Your task to perform on an android device: Go to calendar. Show me events next week Image 0: 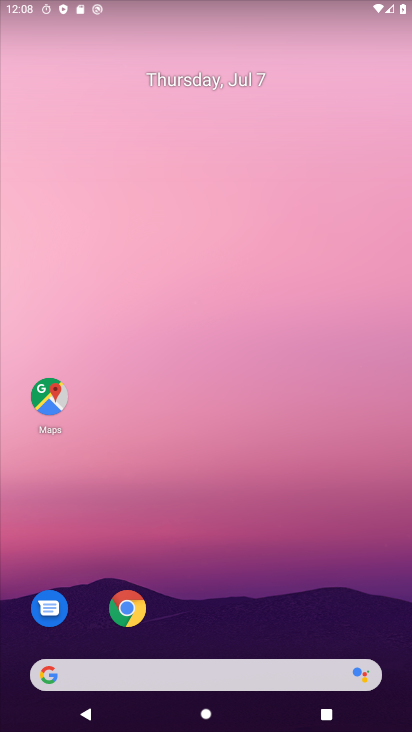
Step 0: drag from (196, 695) to (289, 109)
Your task to perform on an android device: Go to calendar. Show me events next week Image 1: 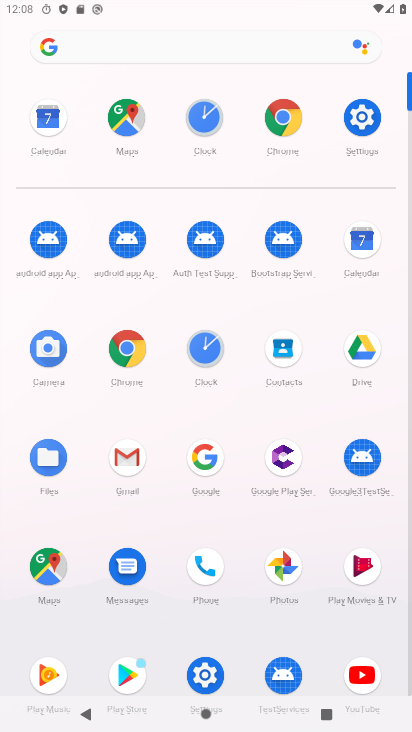
Step 1: click (368, 254)
Your task to perform on an android device: Go to calendar. Show me events next week Image 2: 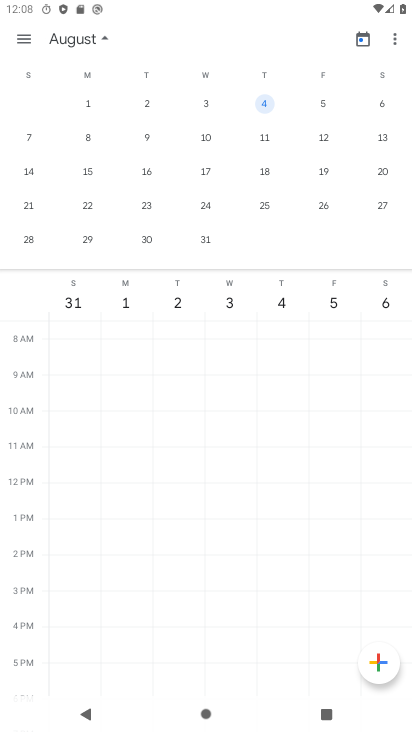
Step 2: drag from (79, 178) to (407, 244)
Your task to perform on an android device: Go to calendar. Show me events next week Image 3: 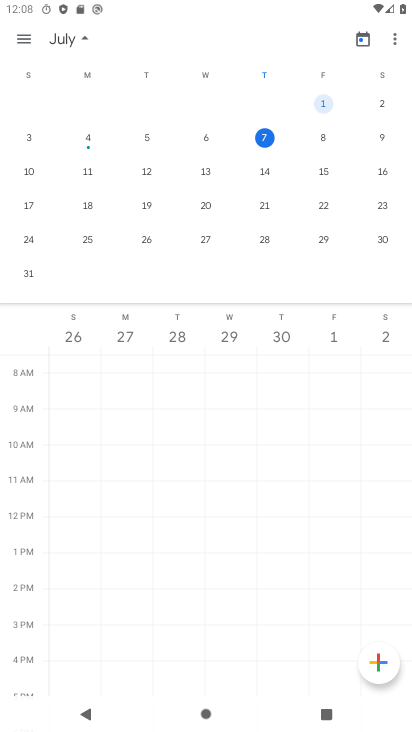
Step 3: click (262, 175)
Your task to perform on an android device: Go to calendar. Show me events next week Image 4: 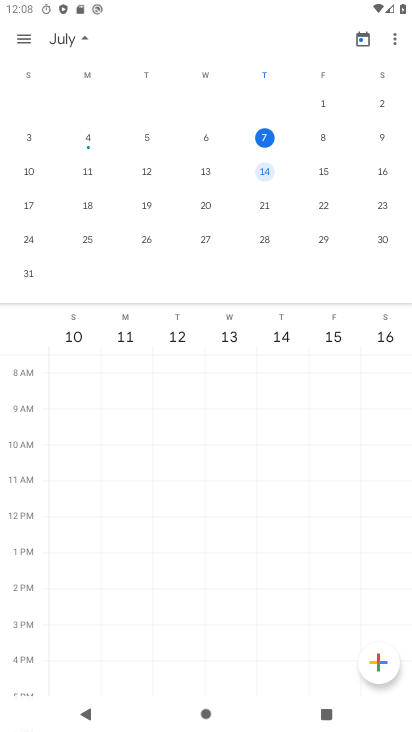
Step 4: task complete